Your task to perform on an android device: toggle notification dots Image 0: 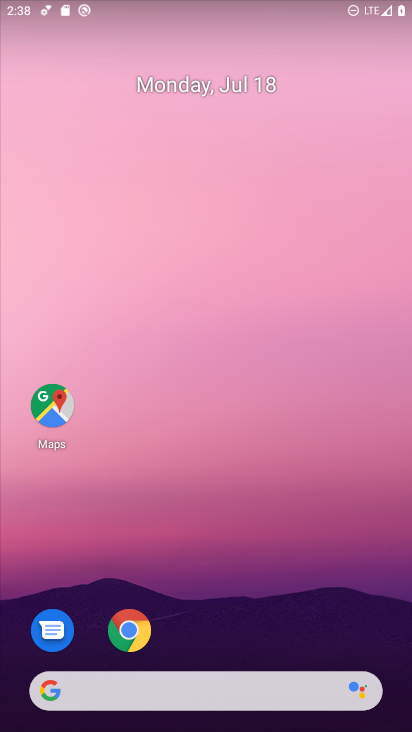
Step 0: drag from (247, 572) to (300, 2)
Your task to perform on an android device: toggle notification dots Image 1: 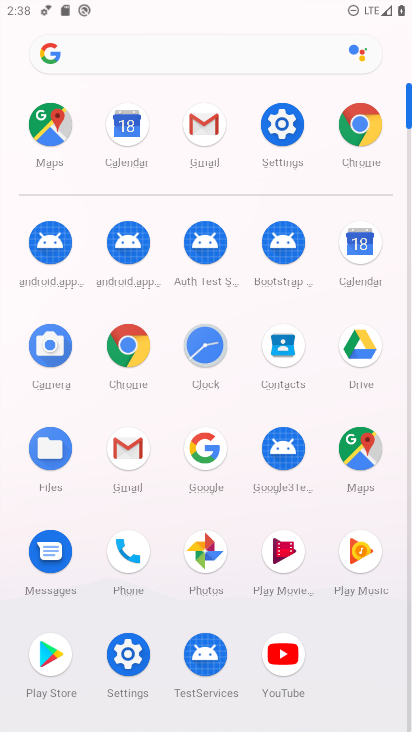
Step 1: click (279, 141)
Your task to perform on an android device: toggle notification dots Image 2: 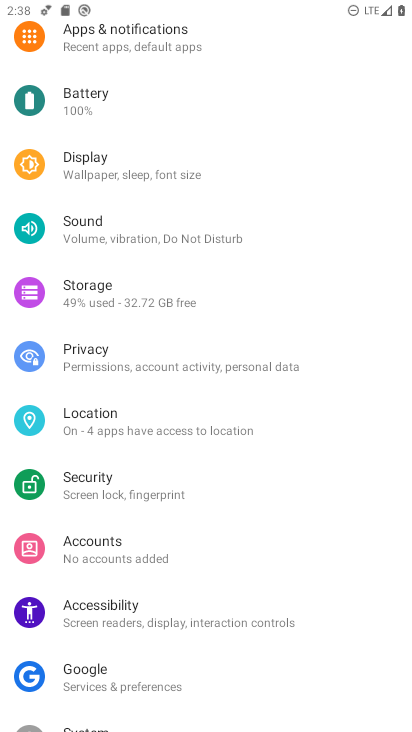
Step 2: click (103, 48)
Your task to perform on an android device: toggle notification dots Image 3: 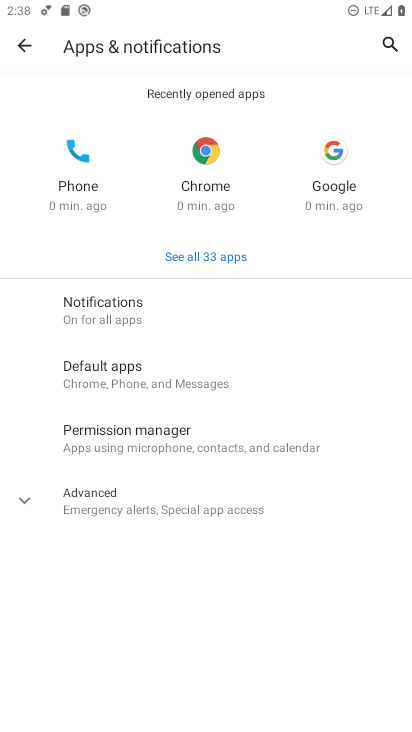
Step 3: click (95, 298)
Your task to perform on an android device: toggle notification dots Image 4: 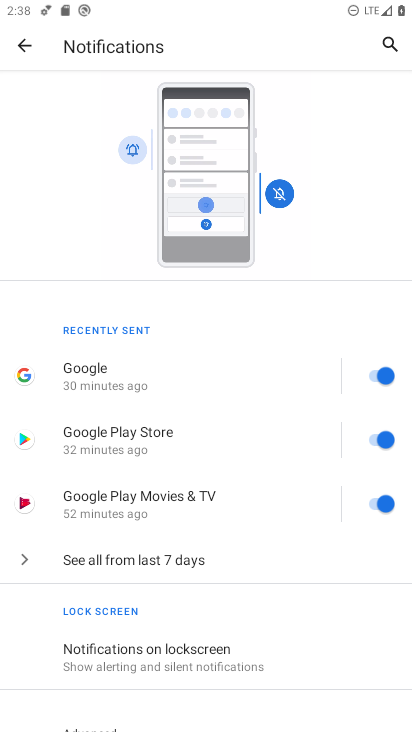
Step 4: click (393, 8)
Your task to perform on an android device: toggle notification dots Image 5: 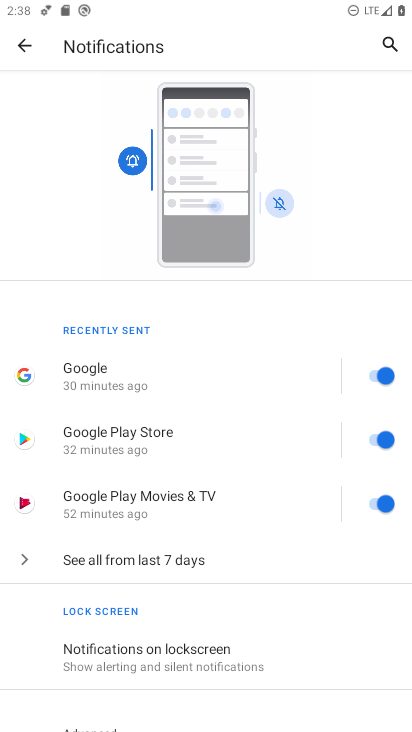
Step 5: drag from (285, 585) to (364, 76)
Your task to perform on an android device: toggle notification dots Image 6: 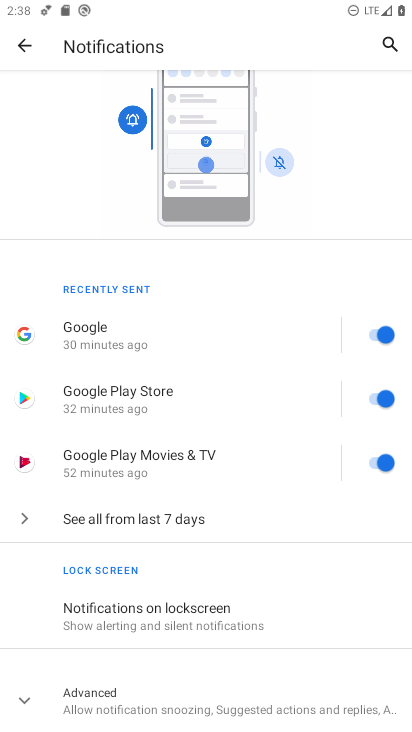
Step 6: click (97, 713)
Your task to perform on an android device: toggle notification dots Image 7: 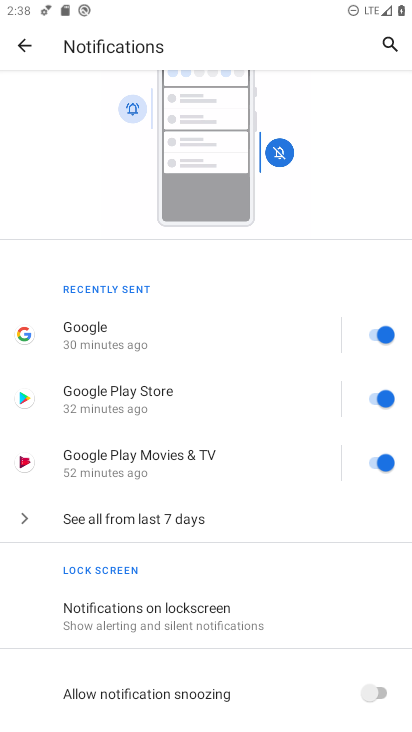
Step 7: drag from (333, 411) to (395, 134)
Your task to perform on an android device: toggle notification dots Image 8: 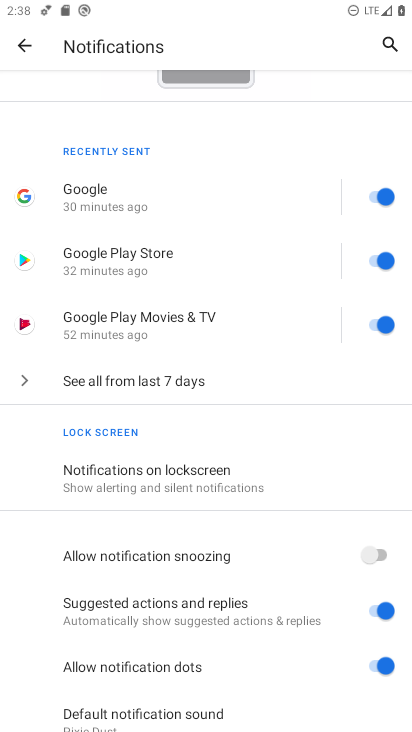
Step 8: click (386, 665)
Your task to perform on an android device: toggle notification dots Image 9: 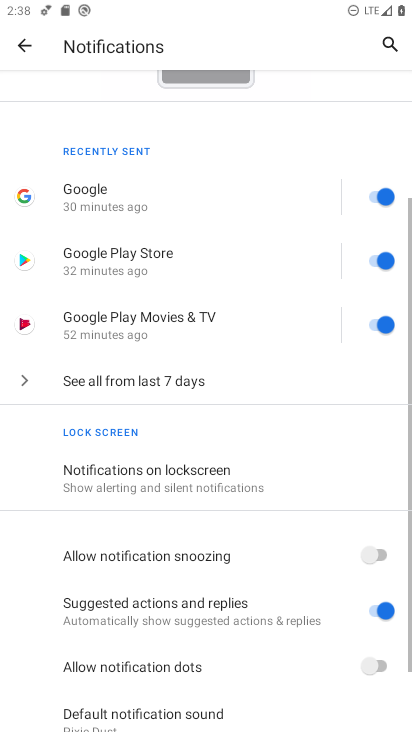
Step 9: task complete